Your task to perform on an android device: change the upload size in google photos Image 0: 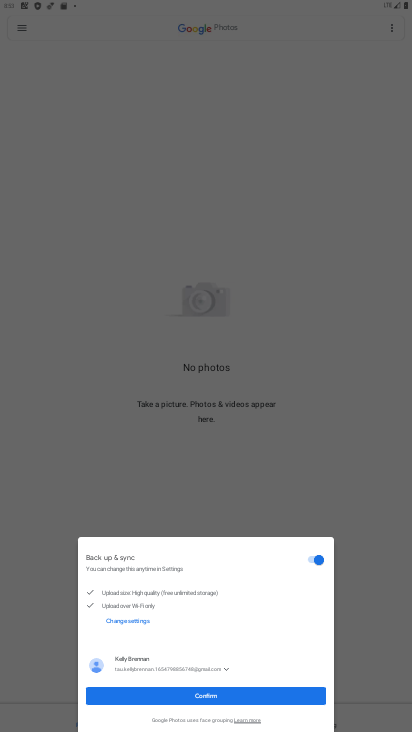
Step 0: press home button
Your task to perform on an android device: change the upload size in google photos Image 1: 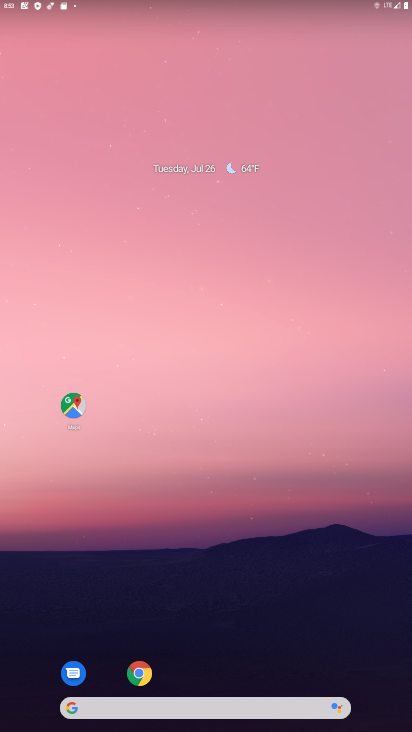
Step 1: drag from (269, 660) to (252, 24)
Your task to perform on an android device: change the upload size in google photos Image 2: 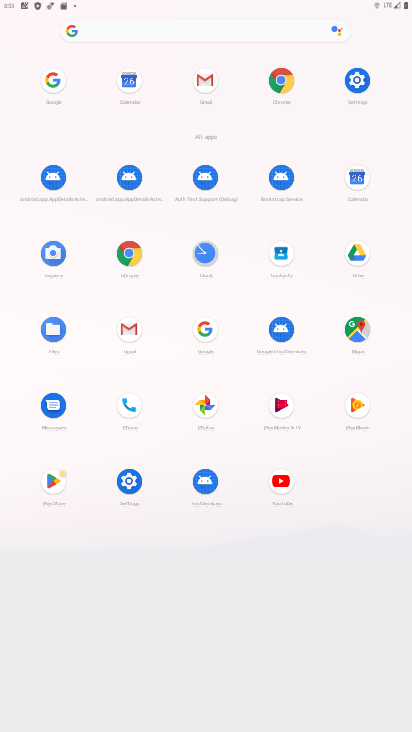
Step 2: click (215, 412)
Your task to perform on an android device: change the upload size in google photos Image 3: 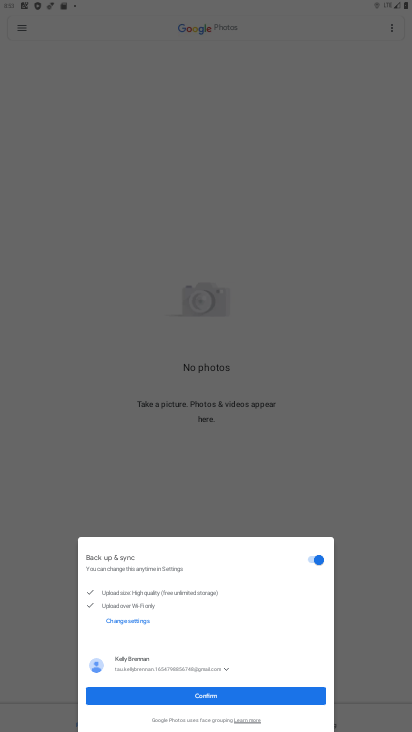
Step 3: click (231, 701)
Your task to perform on an android device: change the upload size in google photos Image 4: 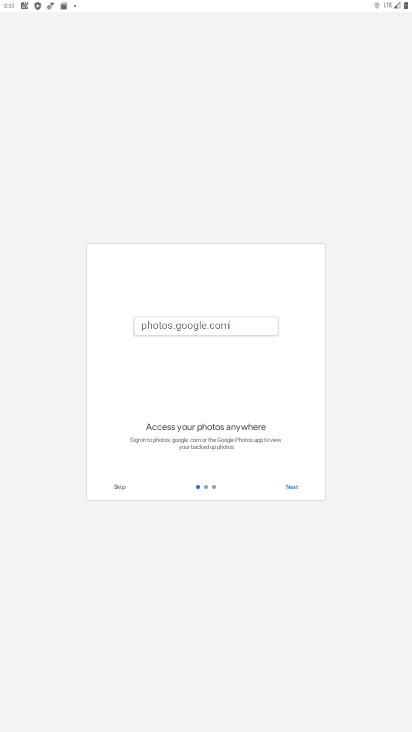
Step 4: click (290, 488)
Your task to perform on an android device: change the upload size in google photos Image 5: 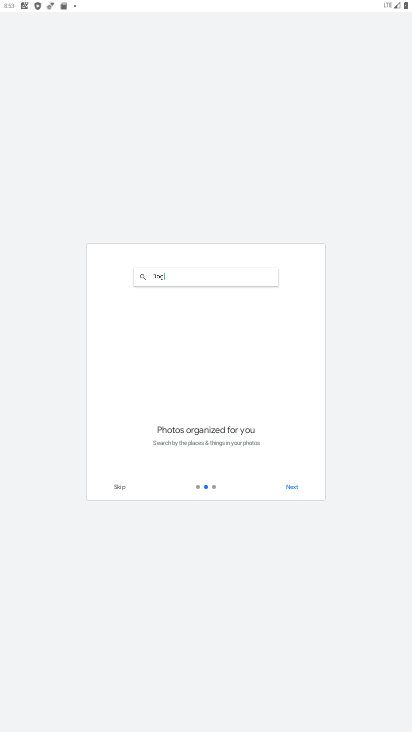
Step 5: click (290, 488)
Your task to perform on an android device: change the upload size in google photos Image 6: 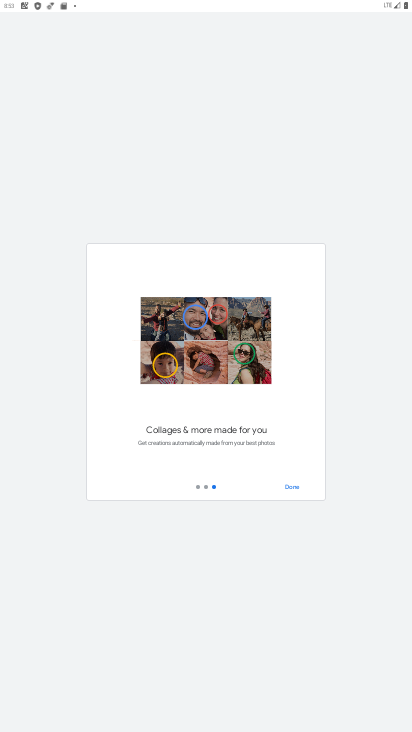
Step 6: click (288, 486)
Your task to perform on an android device: change the upload size in google photos Image 7: 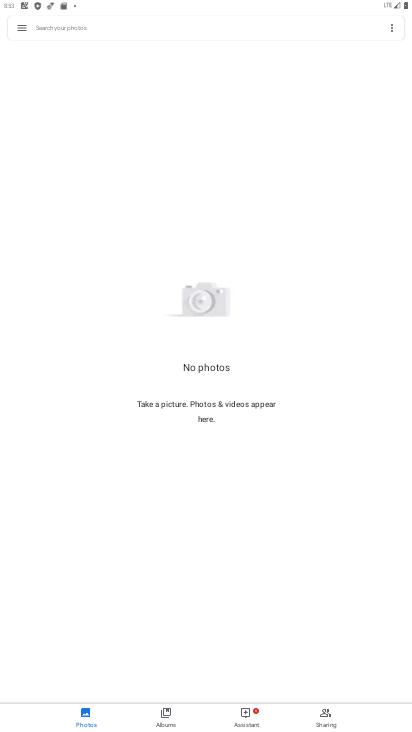
Step 7: click (19, 27)
Your task to perform on an android device: change the upload size in google photos Image 8: 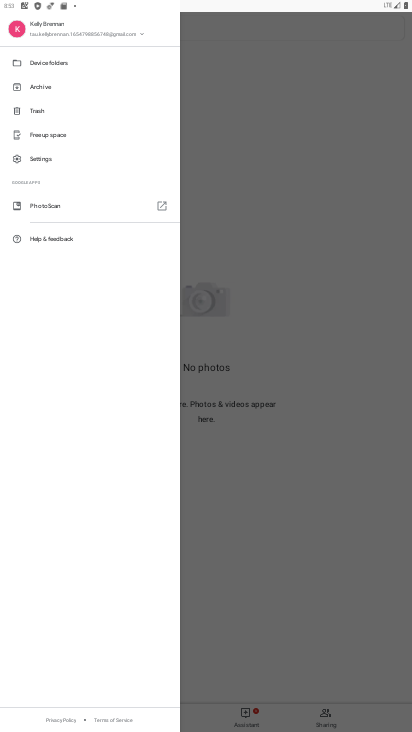
Step 8: click (45, 151)
Your task to perform on an android device: change the upload size in google photos Image 9: 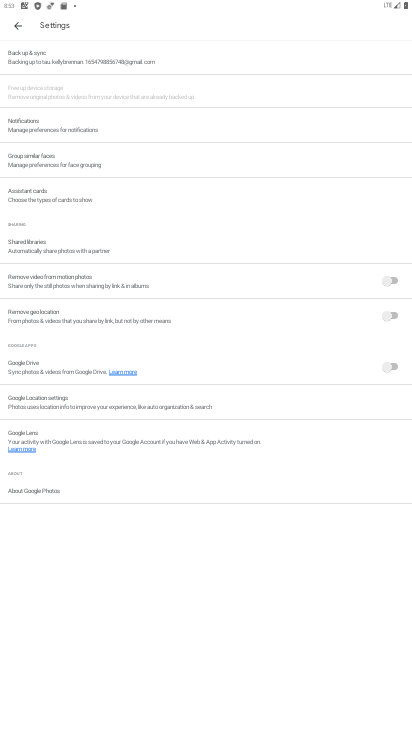
Step 9: click (34, 56)
Your task to perform on an android device: change the upload size in google photos Image 10: 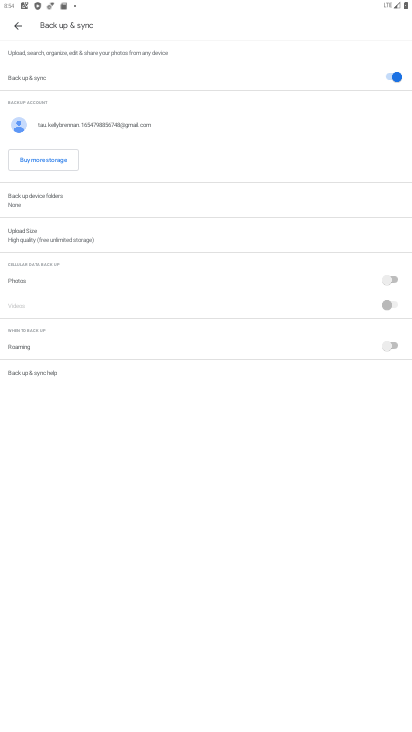
Step 10: click (41, 224)
Your task to perform on an android device: change the upload size in google photos Image 11: 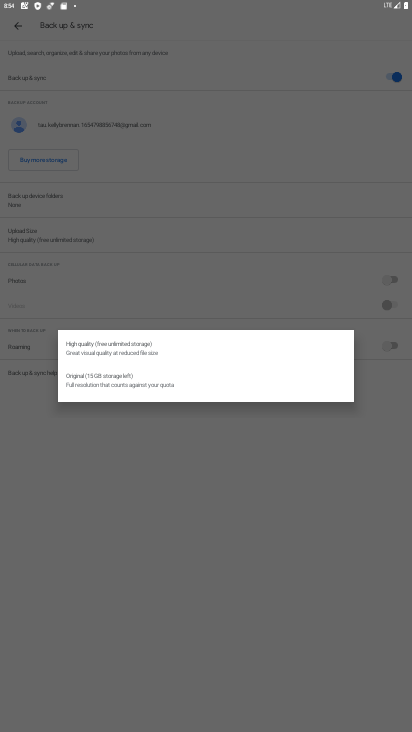
Step 11: click (74, 345)
Your task to perform on an android device: change the upload size in google photos Image 12: 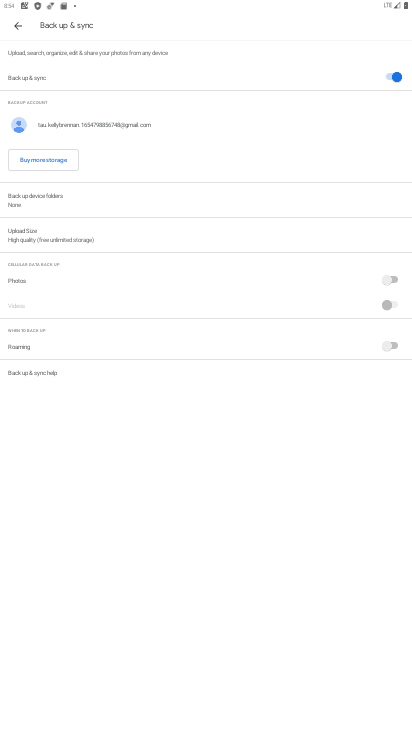
Step 12: task complete